Your task to perform on an android device: change the clock style Image 0: 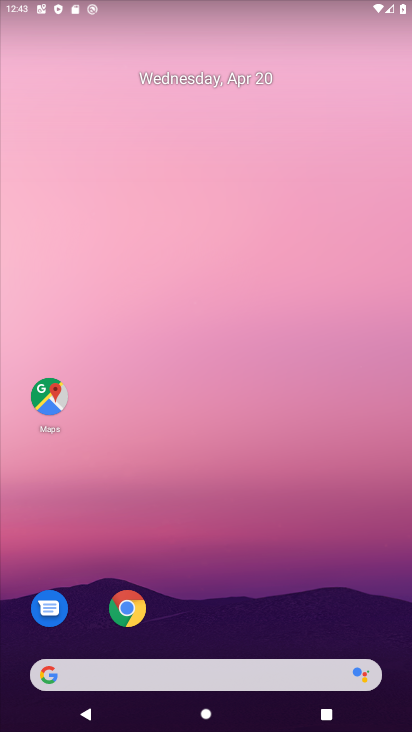
Step 0: drag from (246, 540) to (229, 18)
Your task to perform on an android device: change the clock style Image 1: 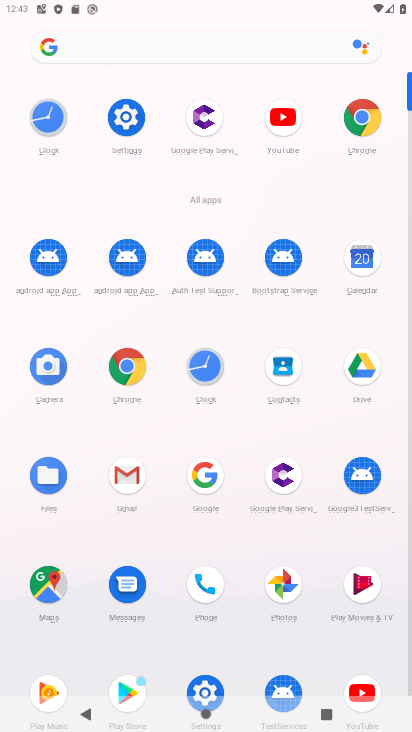
Step 1: click (52, 128)
Your task to perform on an android device: change the clock style Image 2: 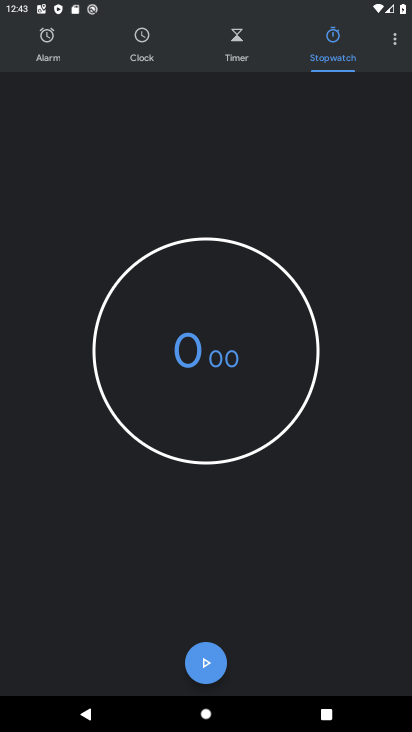
Step 2: click (394, 42)
Your task to perform on an android device: change the clock style Image 3: 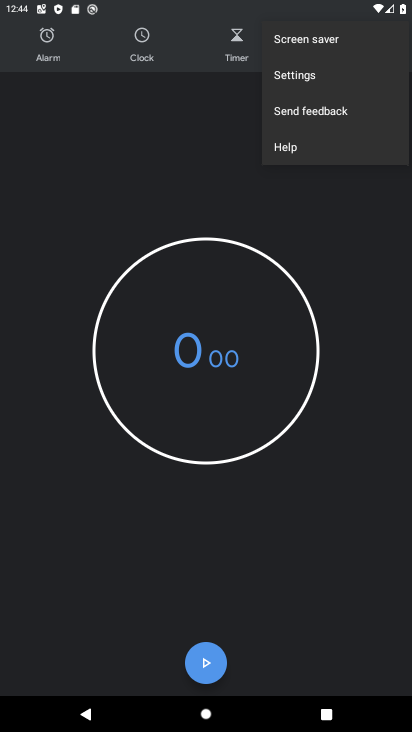
Step 3: click (318, 76)
Your task to perform on an android device: change the clock style Image 4: 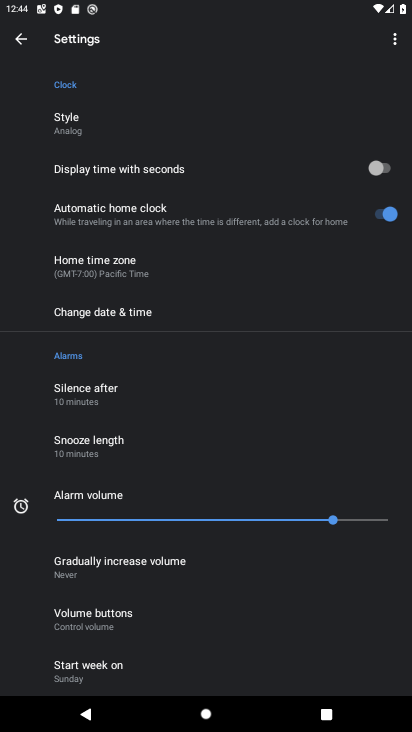
Step 4: click (255, 129)
Your task to perform on an android device: change the clock style Image 5: 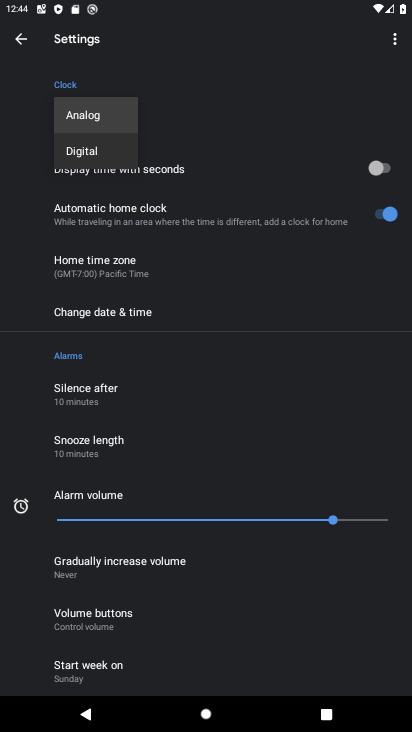
Step 5: click (104, 159)
Your task to perform on an android device: change the clock style Image 6: 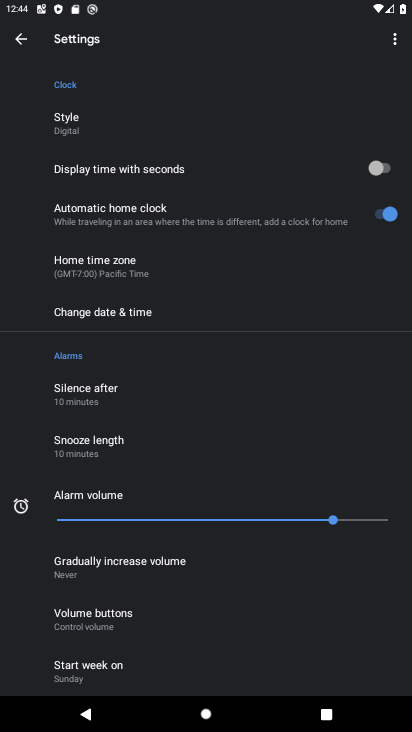
Step 6: task complete